Your task to perform on an android device: Open internet settings Image 0: 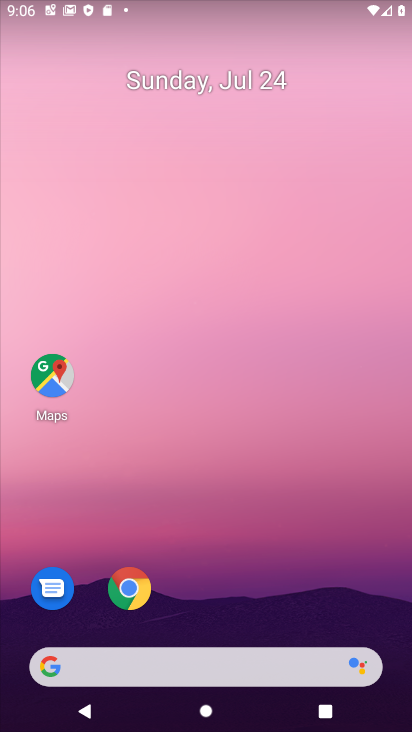
Step 0: drag from (248, 641) to (189, 0)
Your task to perform on an android device: Open internet settings Image 1: 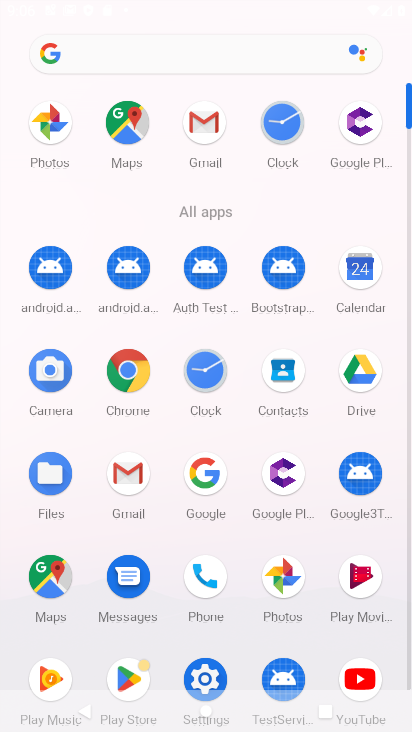
Step 1: click (203, 668)
Your task to perform on an android device: Open internet settings Image 2: 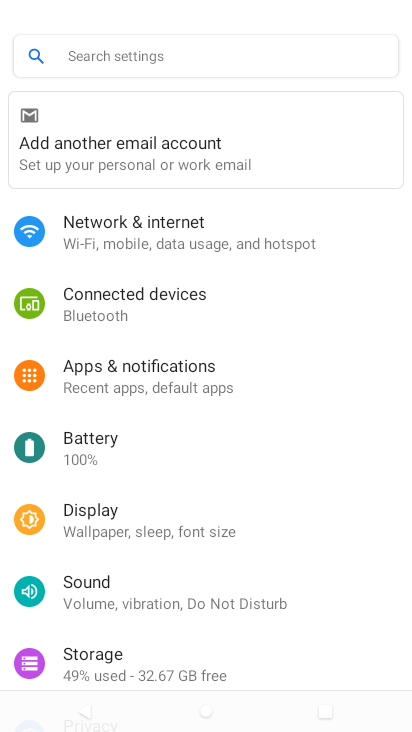
Step 2: click (134, 246)
Your task to perform on an android device: Open internet settings Image 3: 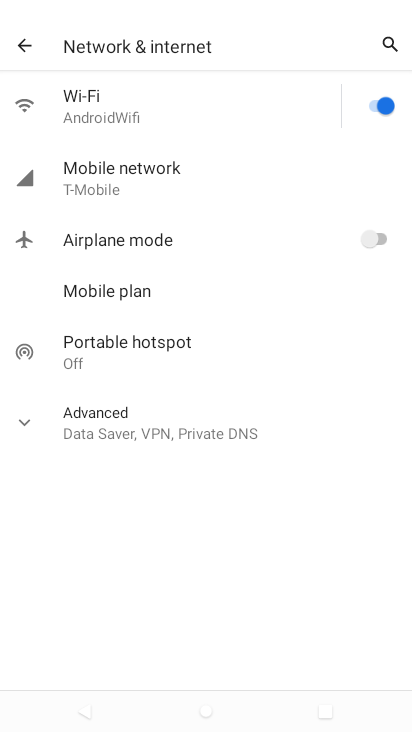
Step 3: click (21, 430)
Your task to perform on an android device: Open internet settings Image 4: 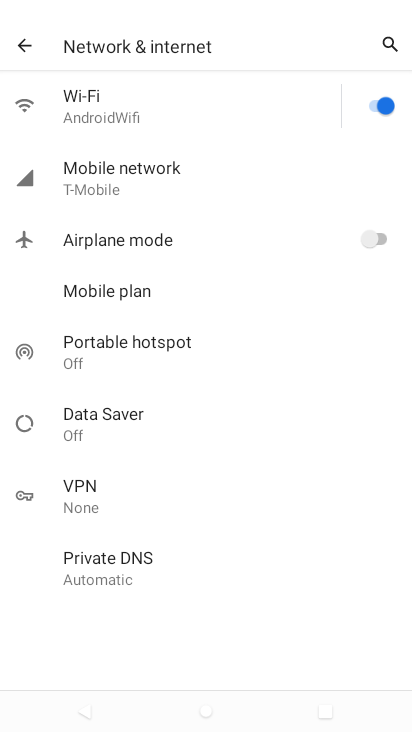
Step 4: task complete